Your task to perform on an android device: What's on my calendar today? Image 0: 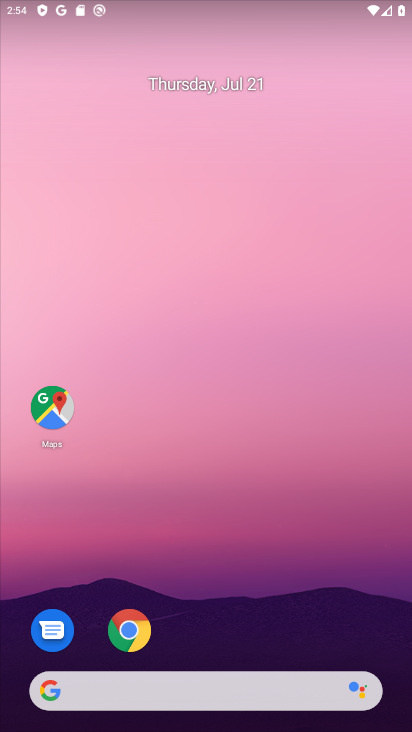
Step 0: drag from (334, 465) to (345, 0)
Your task to perform on an android device: What's on my calendar today? Image 1: 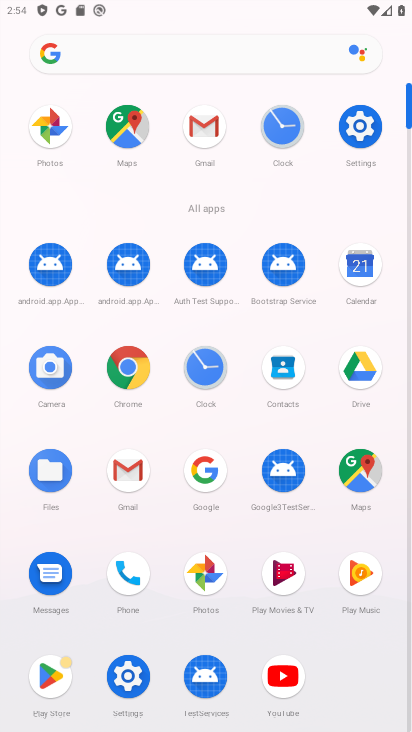
Step 1: click (354, 263)
Your task to perform on an android device: What's on my calendar today? Image 2: 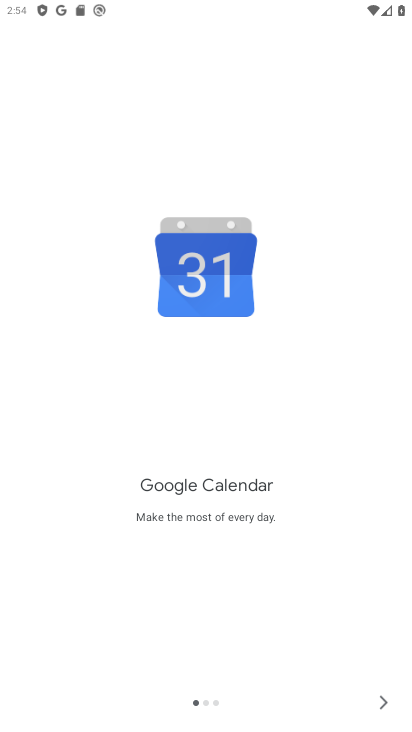
Step 2: click (384, 706)
Your task to perform on an android device: What's on my calendar today? Image 3: 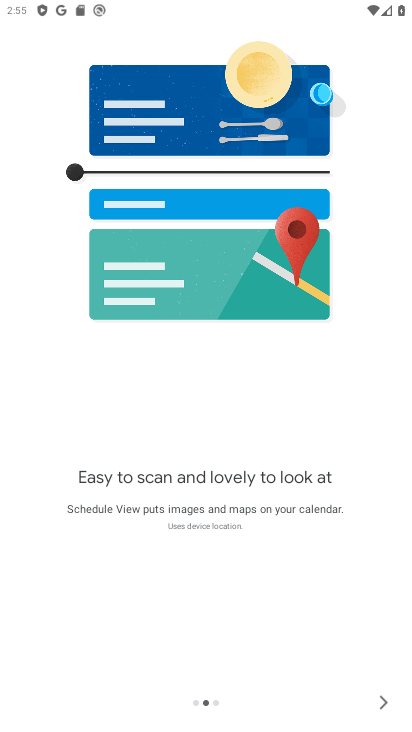
Step 3: click (384, 706)
Your task to perform on an android device: What's on my calendar today? Image 4: 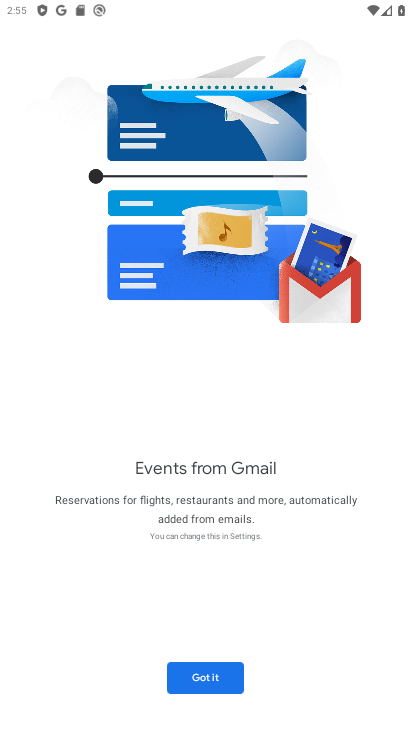
Step 4: click (217, 676)
Your task to perform on an android device: What's on my calendar today? Image 5: 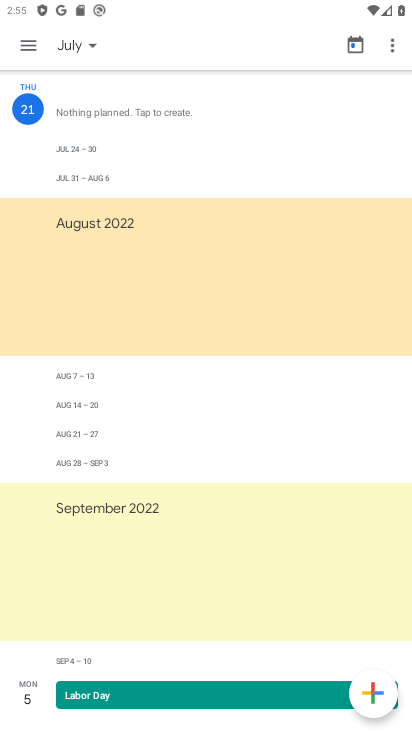
Step 5: click (56, 46)
Your task to perform on an android device: What's on my calendar today? Image 6: 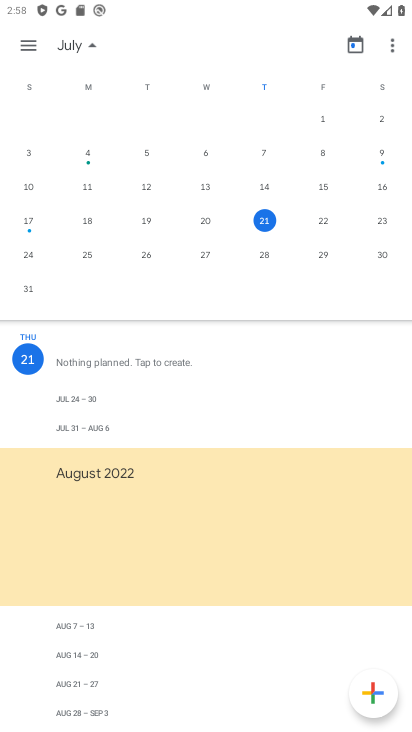
Step 6: task complete